Your task to perform on an android device: Show me popular games on the Play Store Image 0: 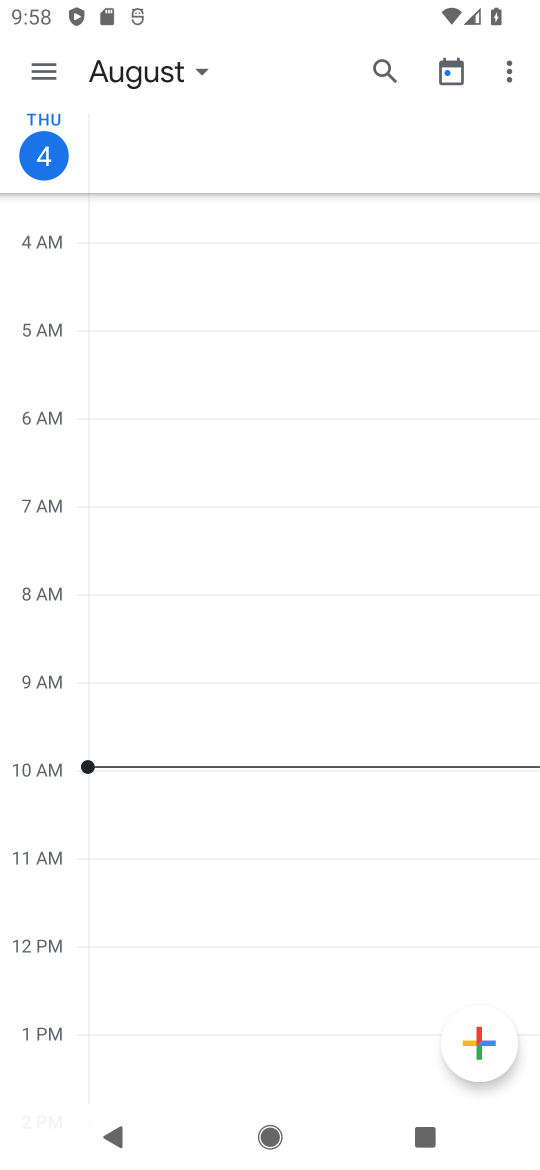
Step 0: press home button
Your task to perform on an android device: Show me popular games on the Play Store Image 1: 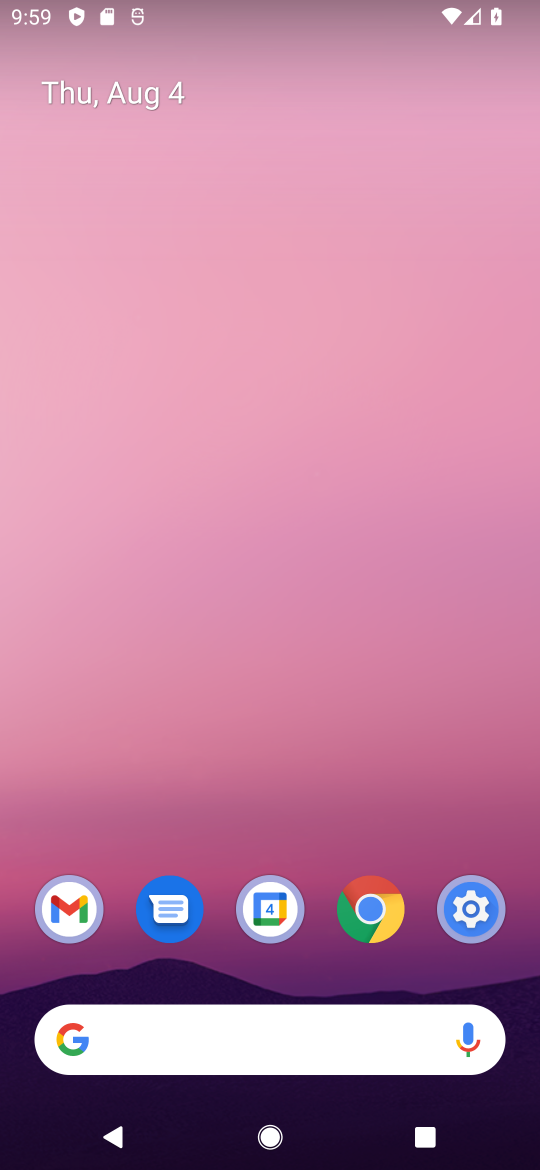
Step 1: drag from (318, 893) to (364, 191)
Your task to perform on an android device: Show me popular games on the Play Store Image 2: 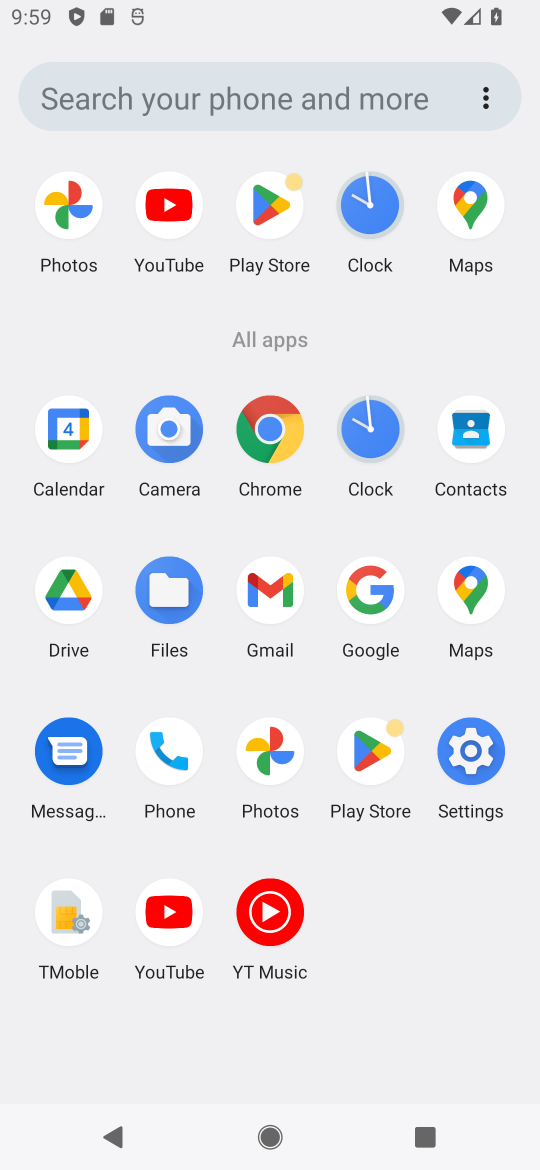
Step 2: click (273, 209)
Your task to perform on an android device: Show me popular games on the Play Store Image 3: 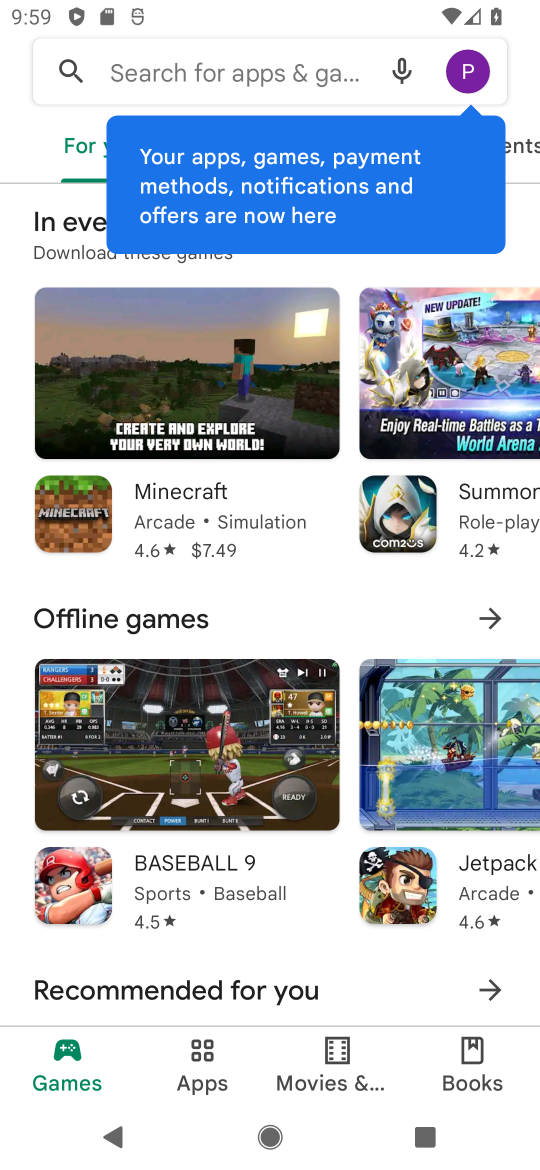
Step 3: click (73, 1074)
Your task to perform on an android device: Show me popular games on the Play Store Image 4: 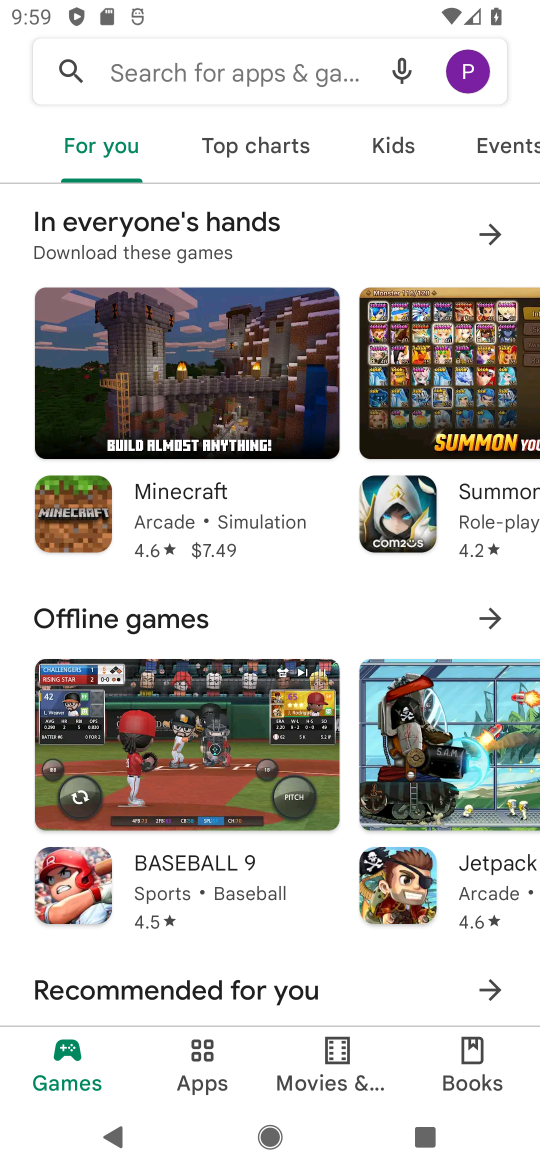
Step 4: drag from (344, 930) to (354, 289)
Your task to perform on an android device: Show me popular games on the Play Store Image 5: 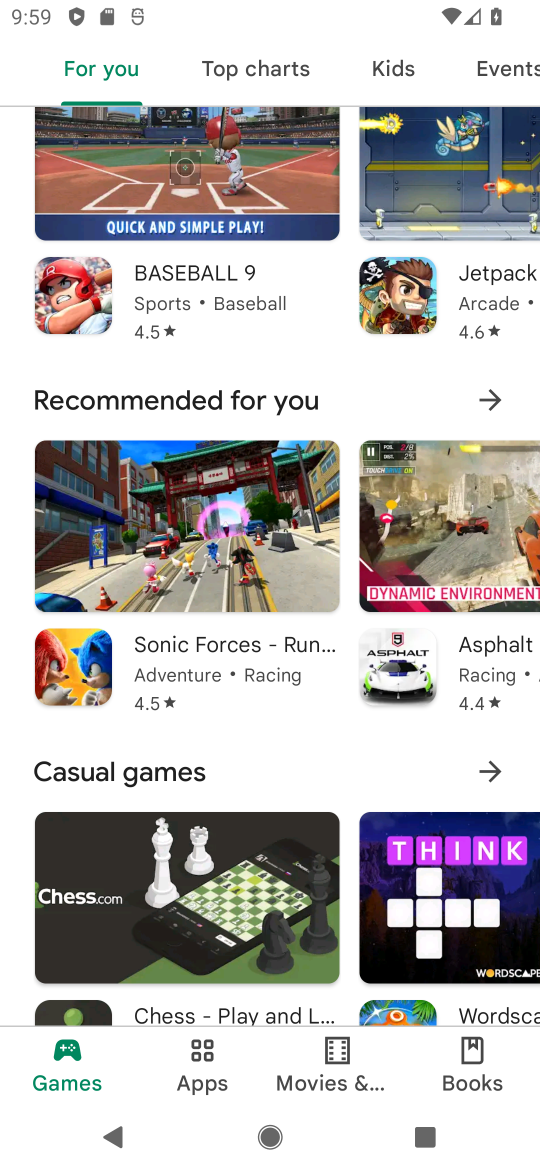
Step 5: drag from (342, 789) to (355, 296)
Your task to perform on an android device: Show me popular games on the Play Store Image 6: 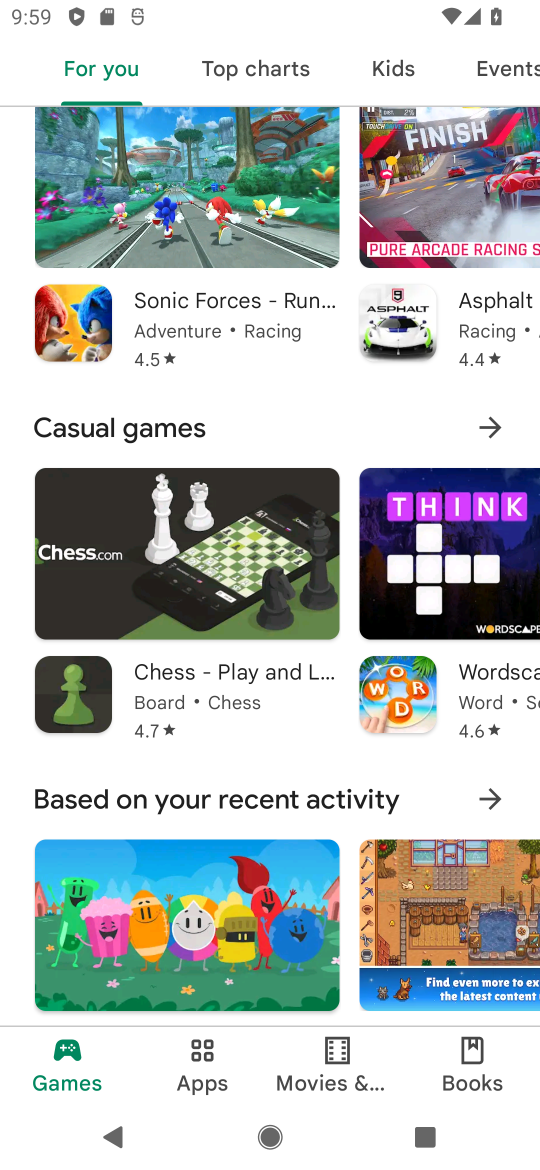
Step 6: drag from (286, 804) to (323, 189)
Your task to perform on an android device: Show me popular games on the Play Store Image 7: 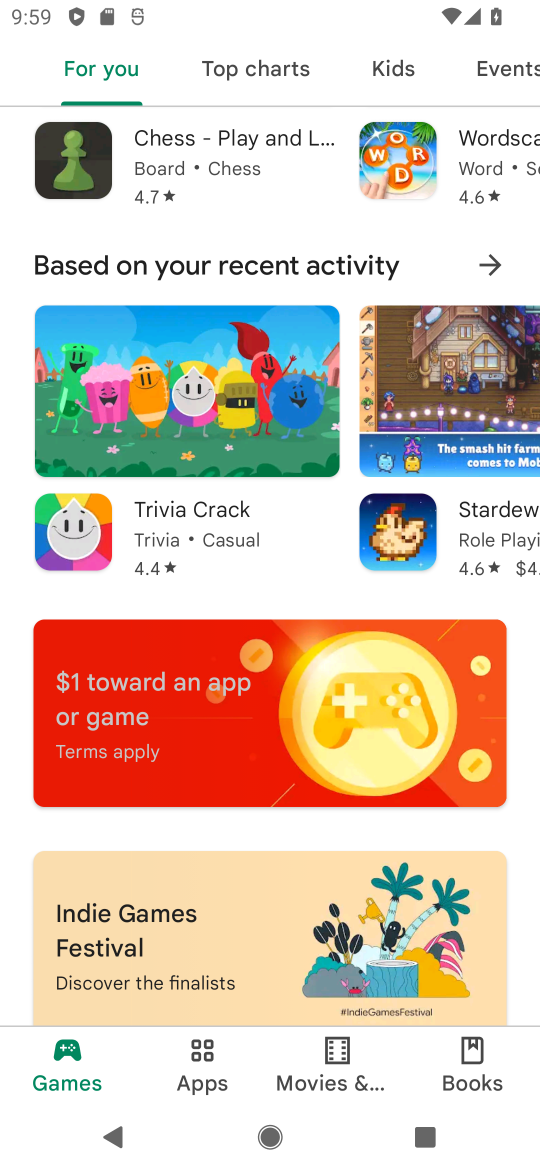
Step 7: drag from (200, 882) to (235, 309)
Your task to perform on an android device: Show me popular games on the Play Store Image 8: 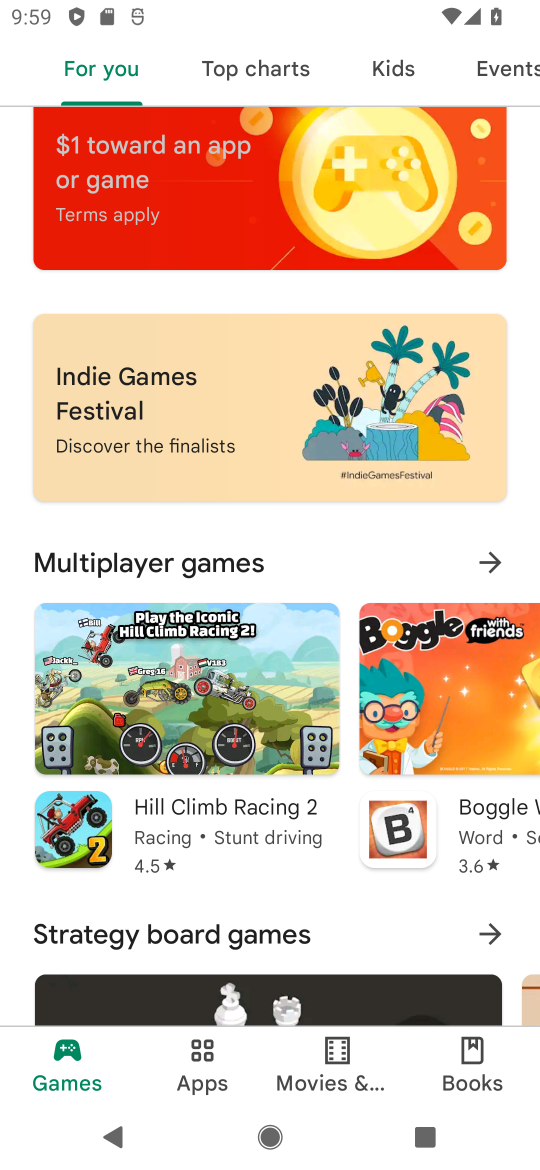
Step 8: drag from (199, 853) to (232, 273)
Your task to perform on an android device: Show me popular games on the Play Store Image 9: 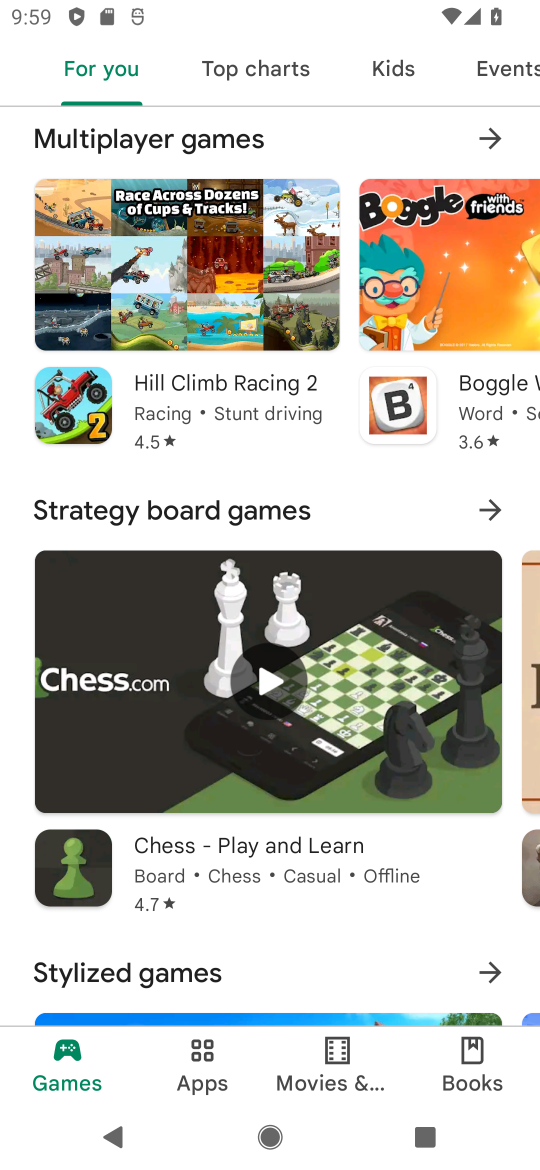
Step 9: drag from (259, 920) to (303, 337)
Your task to perform on an android device: Show me popular games on the Play Store Image 10: 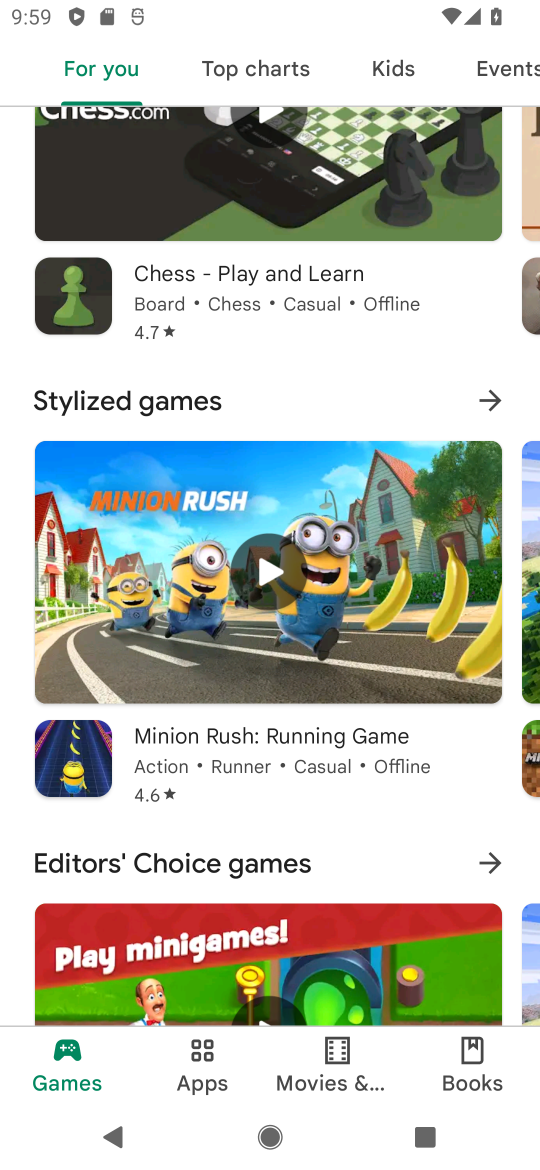
Step 10: drag from (236, 807) to (271, 332)
Your task to perform on an android device: Show me popular games on the Play Store Image 11: 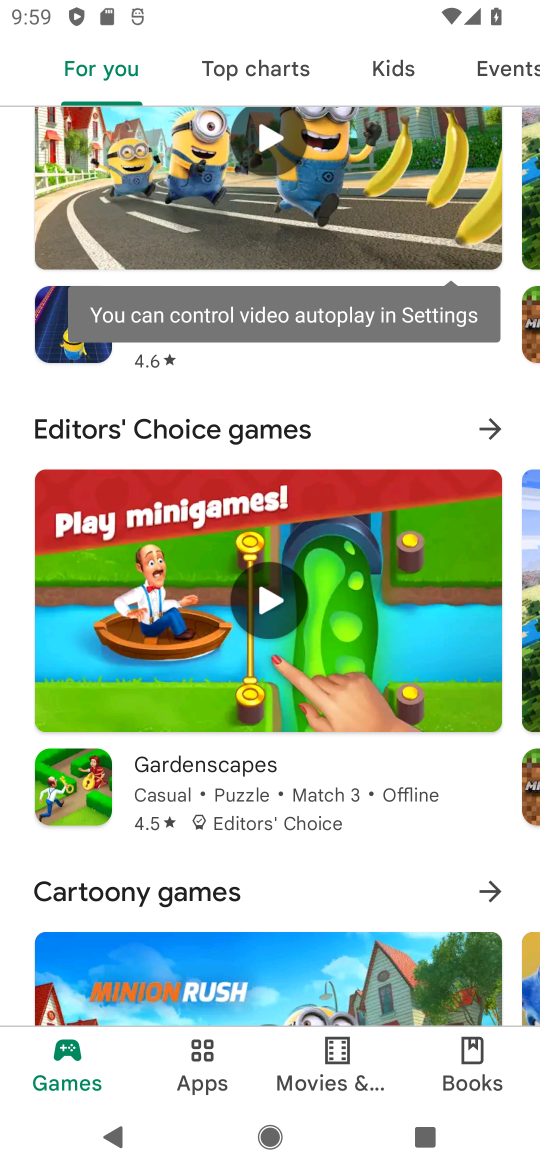
Step 11: drag from (216, 857) to (252, 367)
Your task to perform on an android device: Show me popular games on the Play Store Image 12: 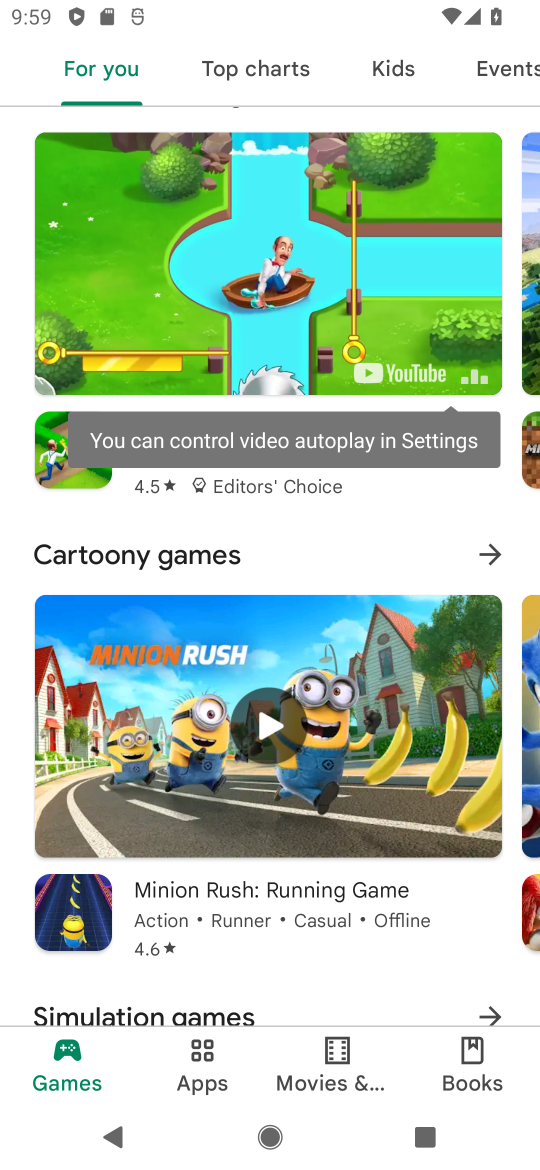
Step 12: drag from (221, 771) to (308, 212)
Your task to perform on an android device: Show me popular games on the Play Store Image 13: 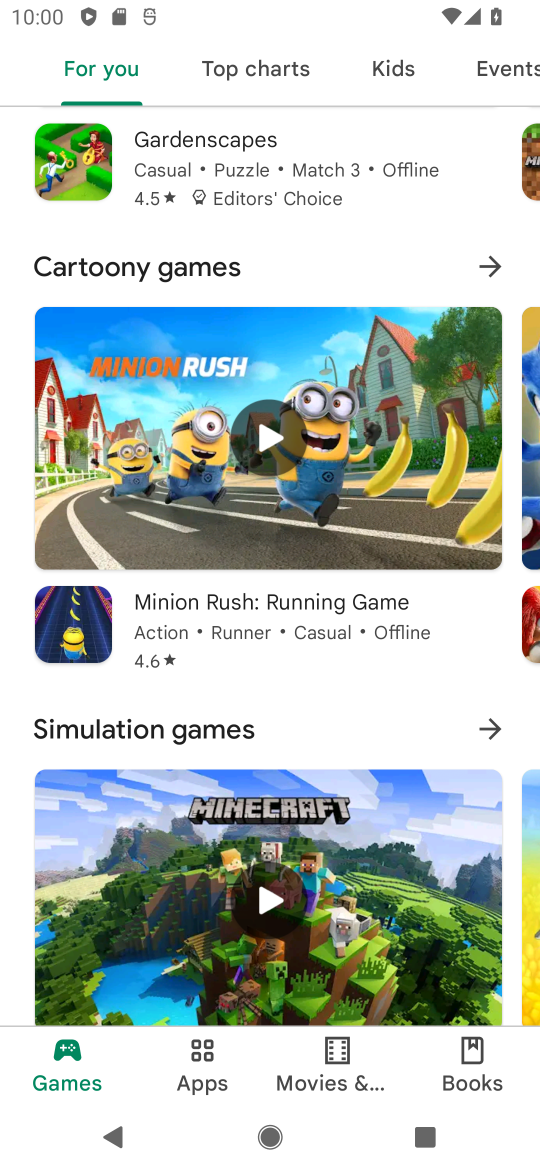
Step 13: drag from (341, 722) to (356, 322)
Your task to perform on an android device: Show me popular games on the Play Store Image 14: 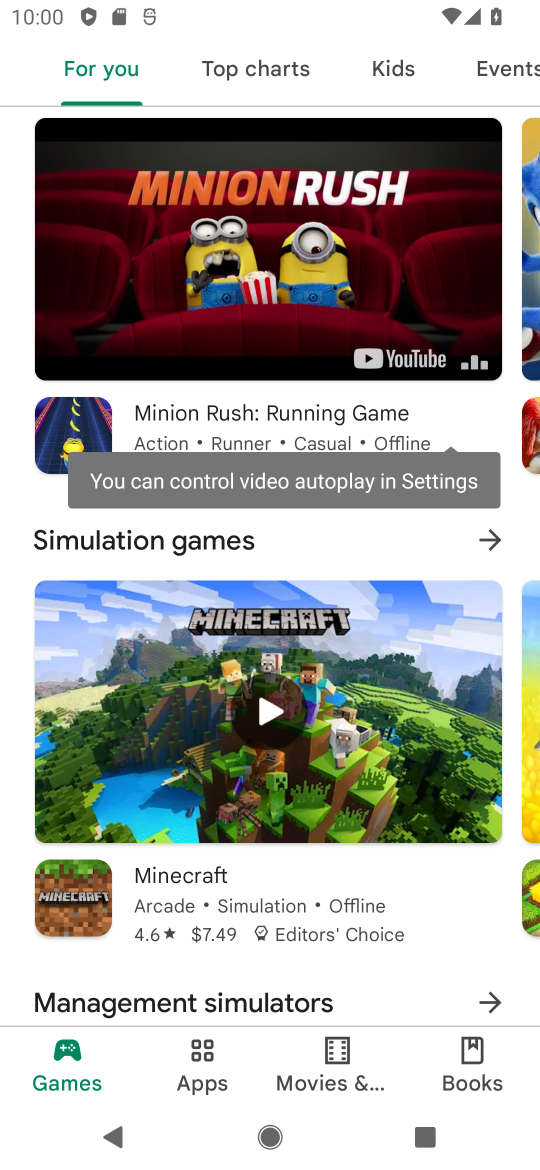
Step 14: drag from (272, 923) to (282, 363)
Your task to perform on an android device: Show me popular games on the Play Store Image 15: 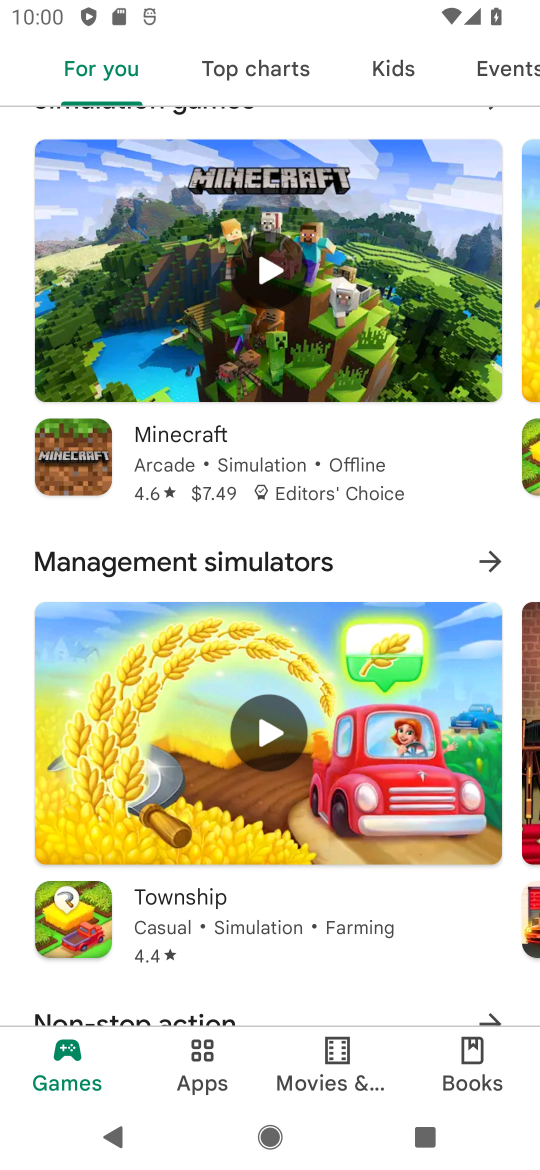
Step 15: drag from (232, 889) to (277, 315)
Your task to perform on an android device: Show me popular games on the Play Store Image 16: 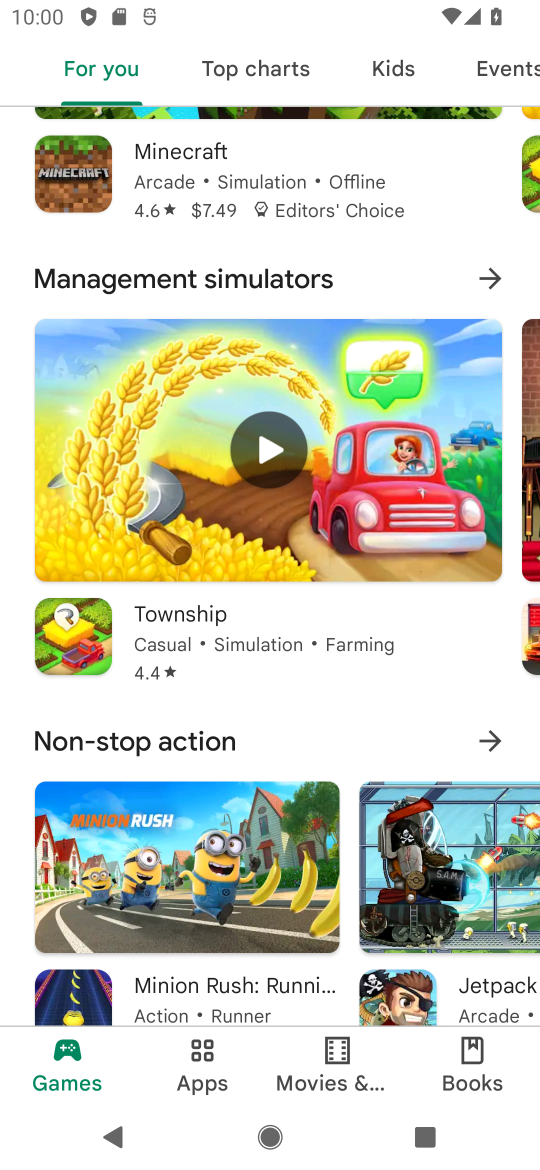
Step 16: drag from (214, 817) to (225, 281)
Your task to perform on an android device: Show me popular games on the Play Store Image 17: 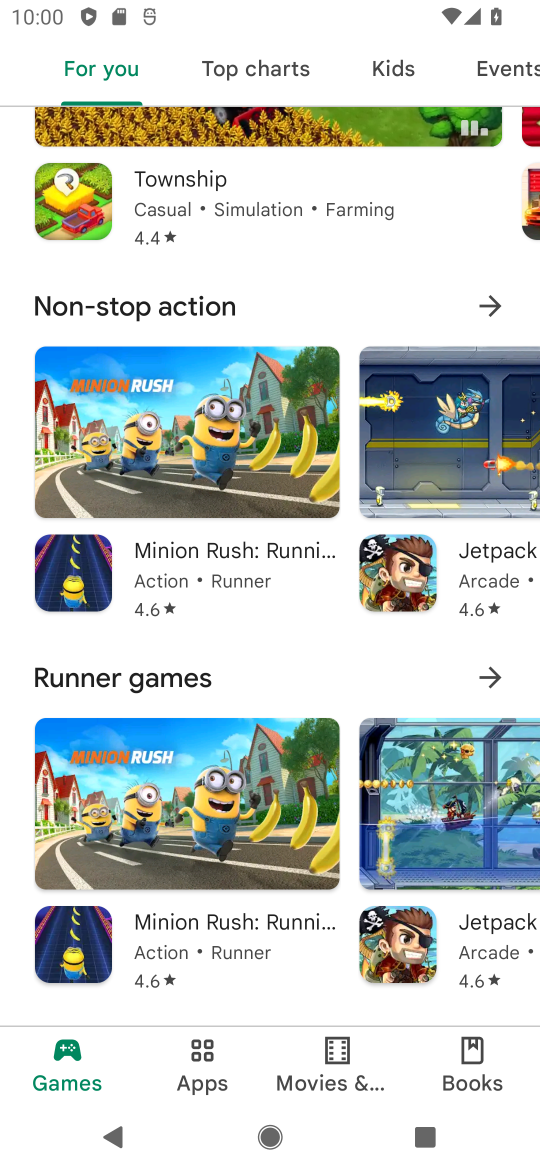
Step 17: drag from (206, 771) to (213, 210)
Your task to perform on an android device: Show me popular games on the Play Store Image 18: 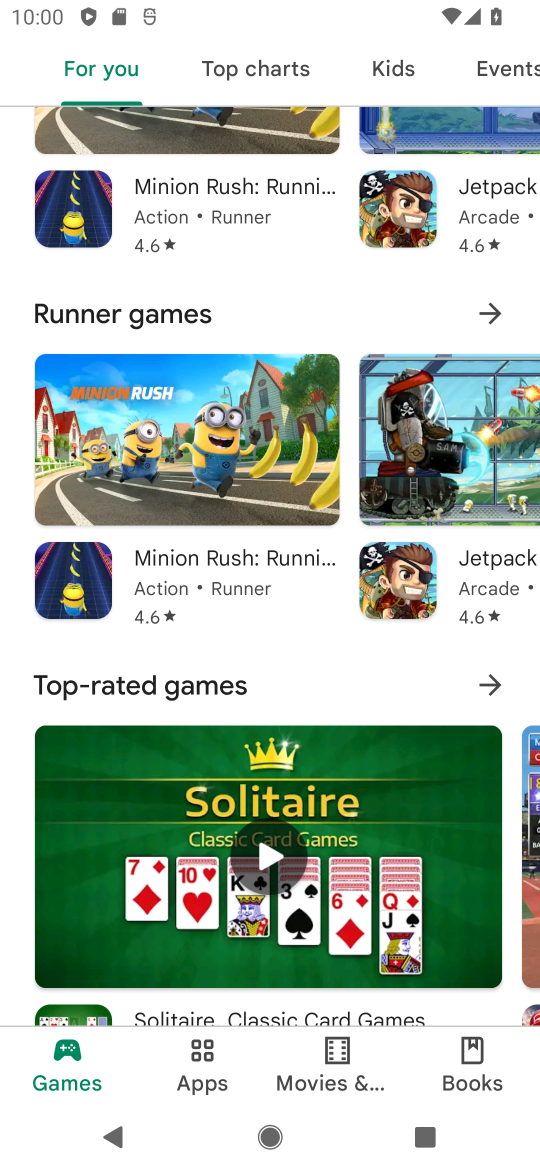
Step 18: drag from (219, 935) to (217, 326)
Your task to perform on an android device: Show me popular games on the Play Store Image 19: 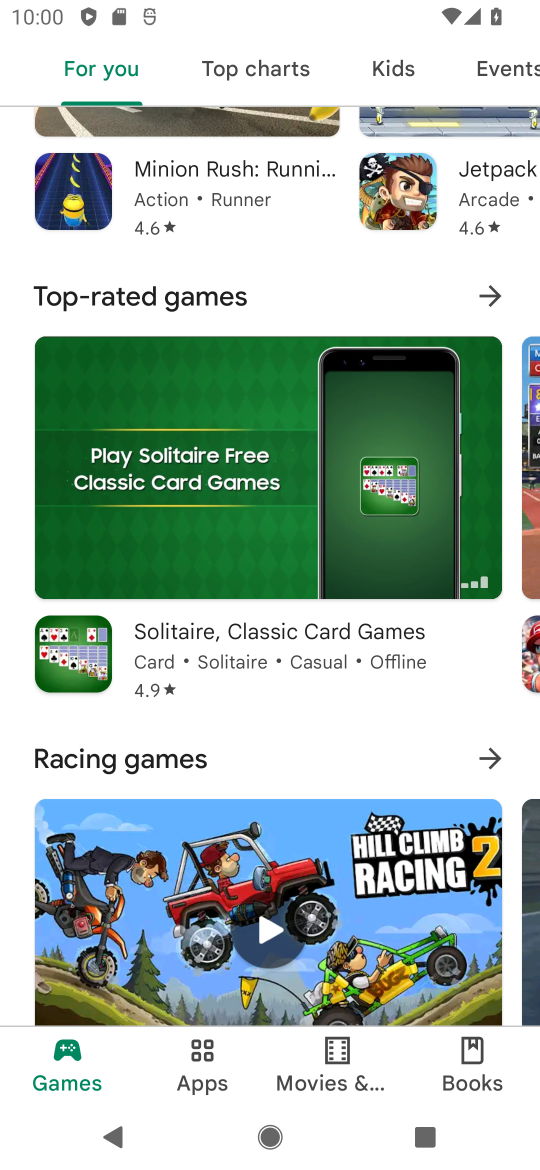
Step 19: drag from (232, 775) to (264, 320)
Your task to perform on an android device: Show me popular games on the Play Store Image 20: 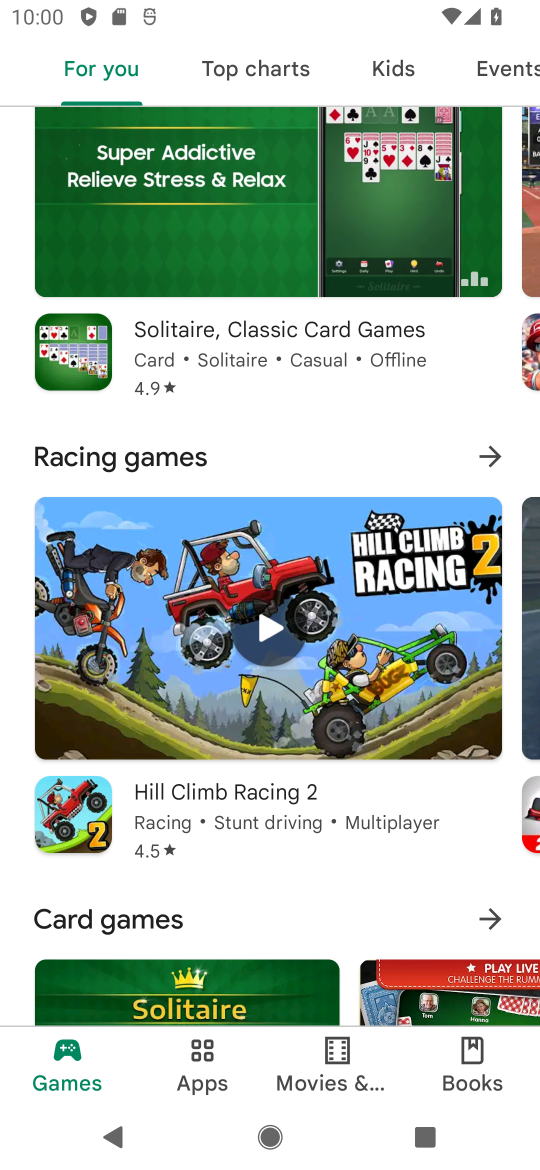
Step 20: drag from (226, 902) to (232, 297)
Your task to perform on an android device: Show me popular games on the Play Store Image 21: 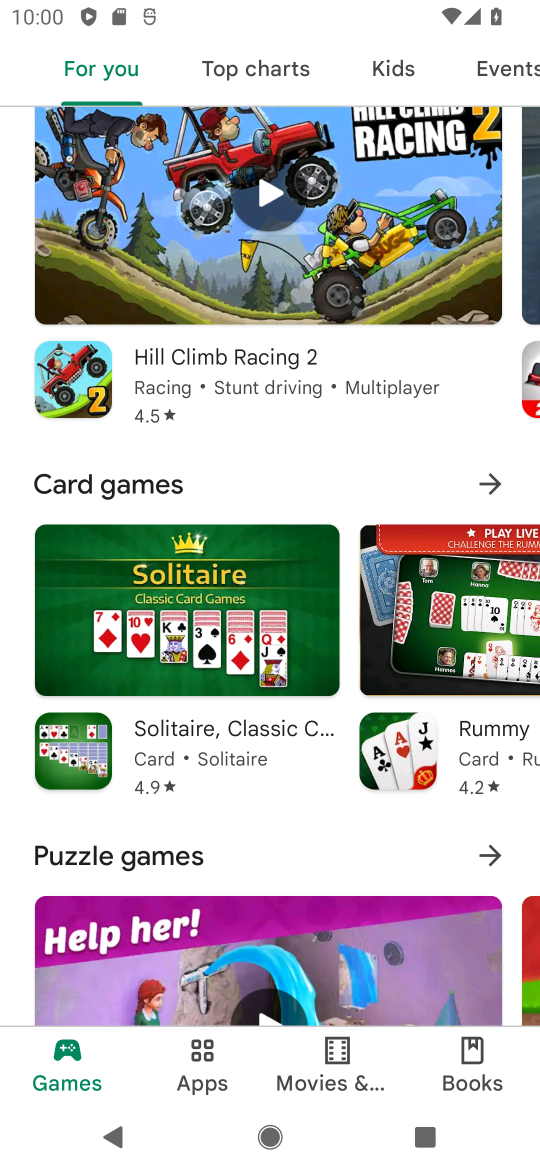
Step 21: drag from (210, 919) to (258, 364)
Your task to perform on an android device: Show me popular games on the Play Store Image 22: 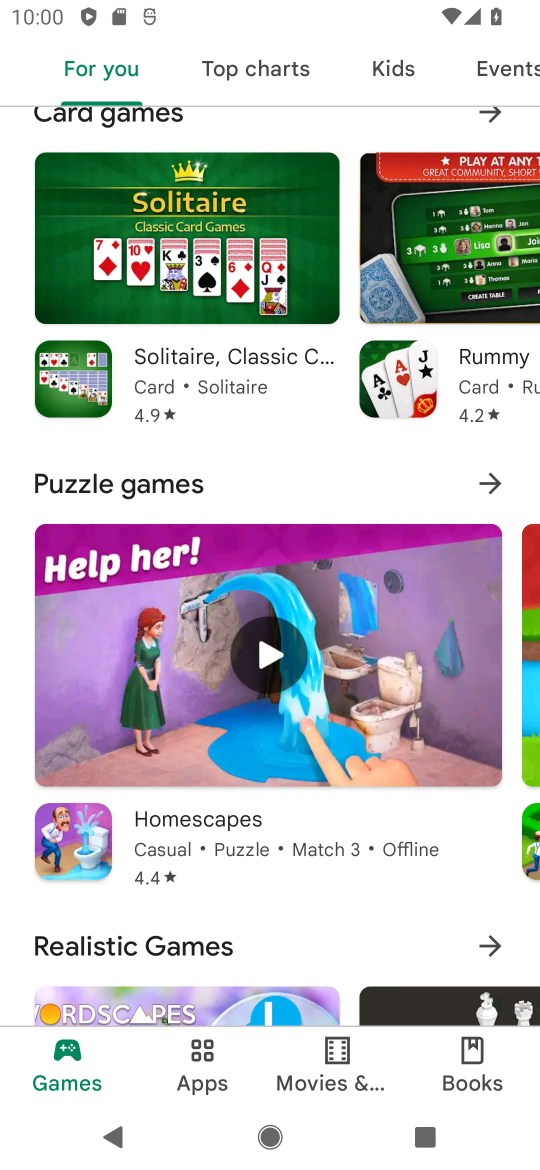
Step 22: drag from (258, 813) to (312, 295)
Your task to perform on an android device: Show me popular games on the Play Store Image 23: 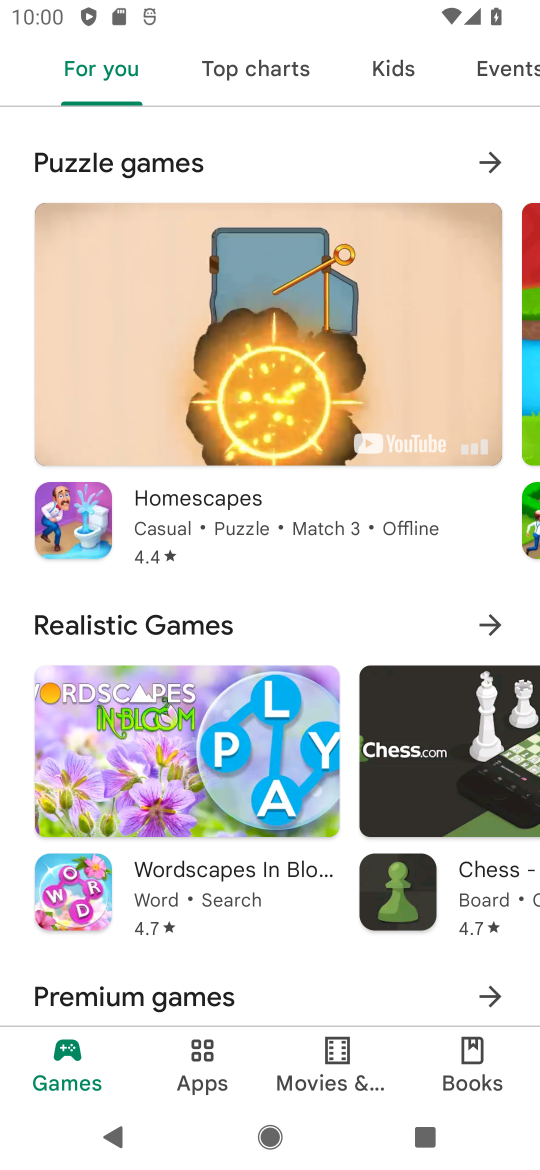
Step 23: drag from (241, 870) to (294, 309)
Your task to perform on an android device: Show me popular games on the Play Store Image 24: 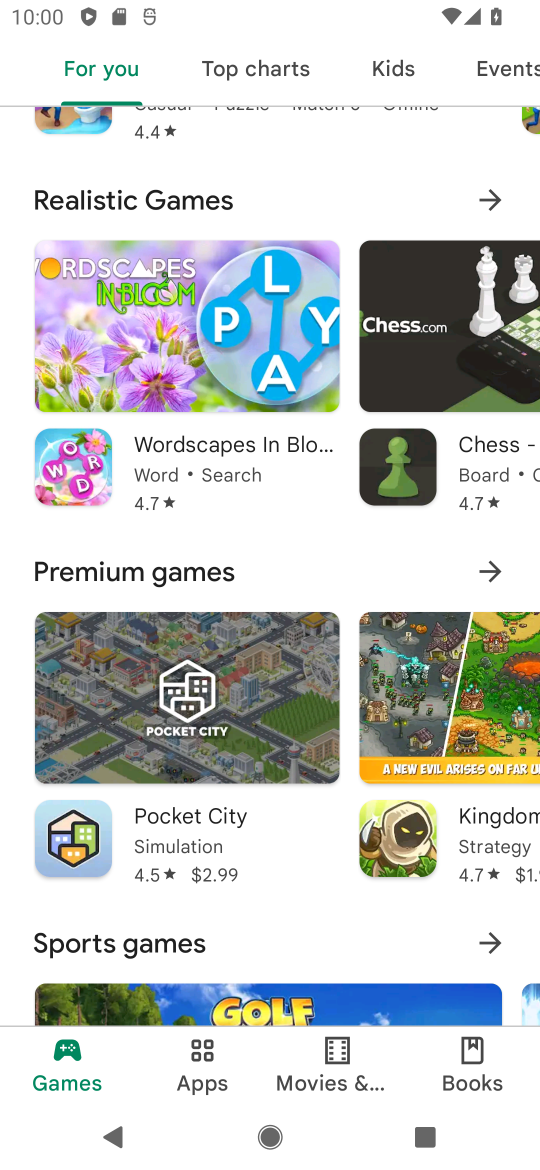
Step 24: drag from (234, 928) to (264, 376)
Your task to perform on an android device: Show me popular games on the Play Store Image 25: 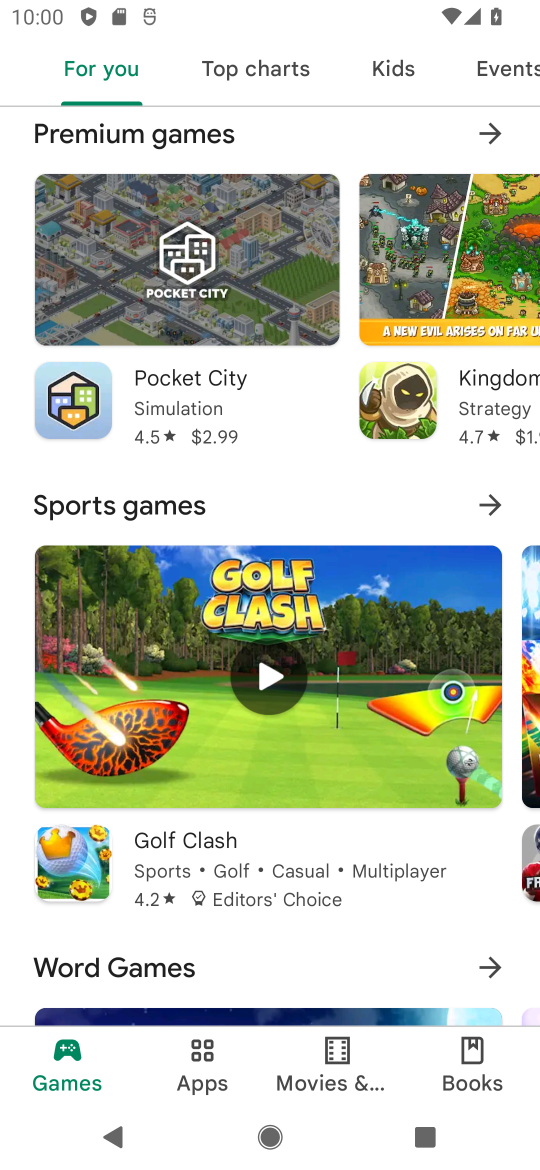
Step 25: drag from (227, 879) to (266, 326)
Your task to perform on an android device: Show me popular games on the Play Store Image 26: 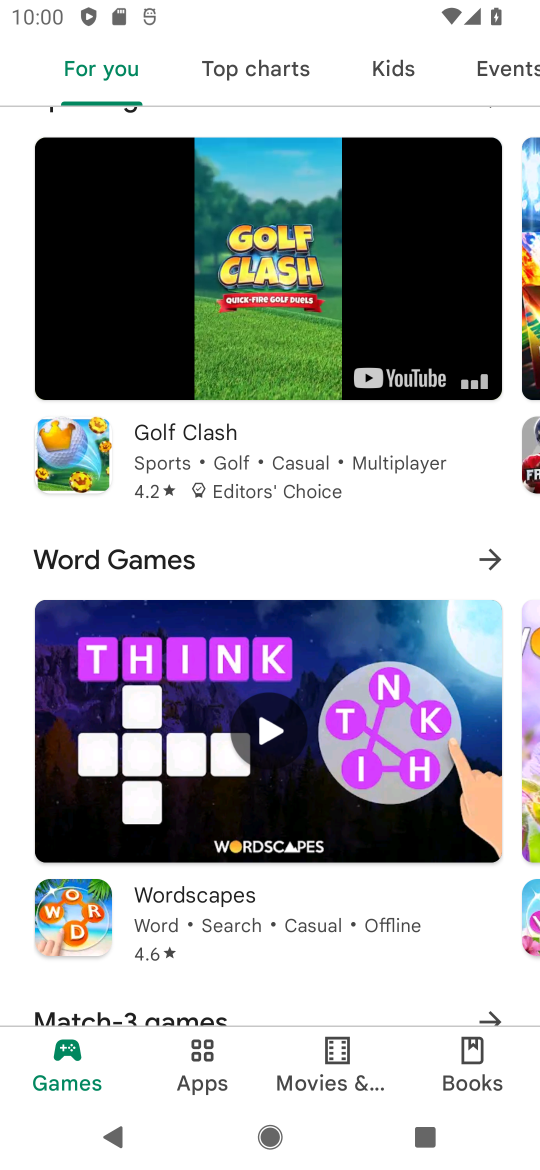
Step 26: drag from (222, 929) to (298, 316)
Your task to perform on an android device: Show me popular games on the Play Store Image 27: 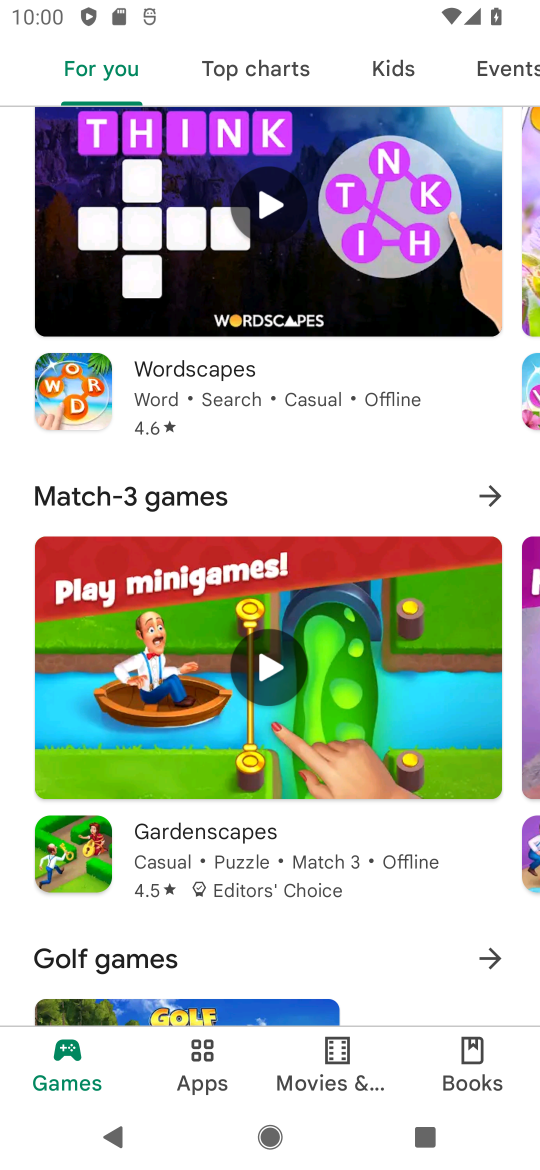
Step 27: drag from (239, 898) to (270, 333)
Your task to perform on an android device: Show me popular games on the Play Store Image 28: 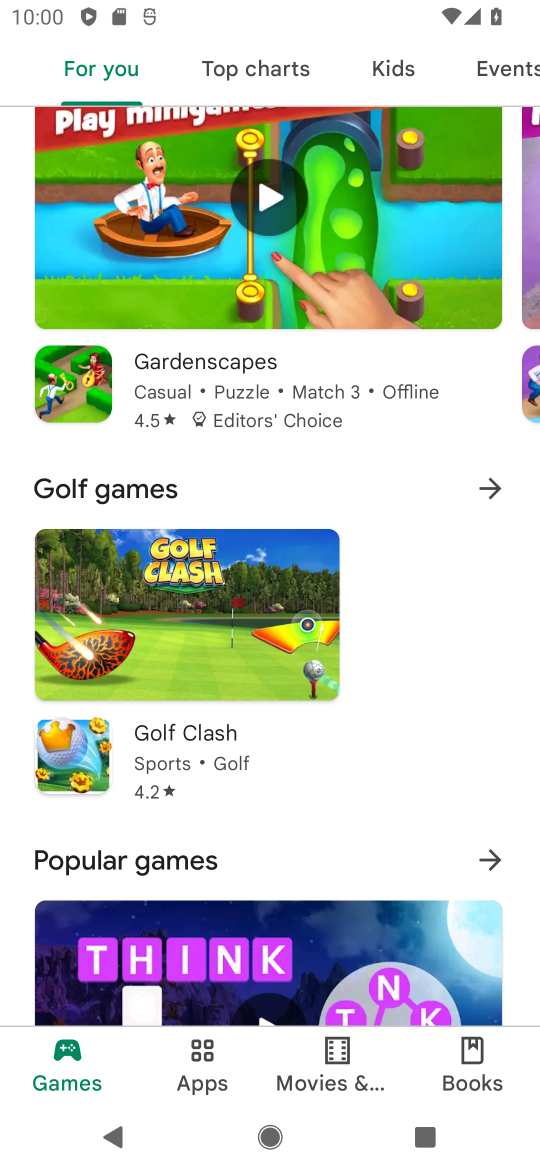
Step 28: drag from (246, 891) to (275, 498)
Your task to perform on an android device: Show me popular games on the Play Store Image 29: 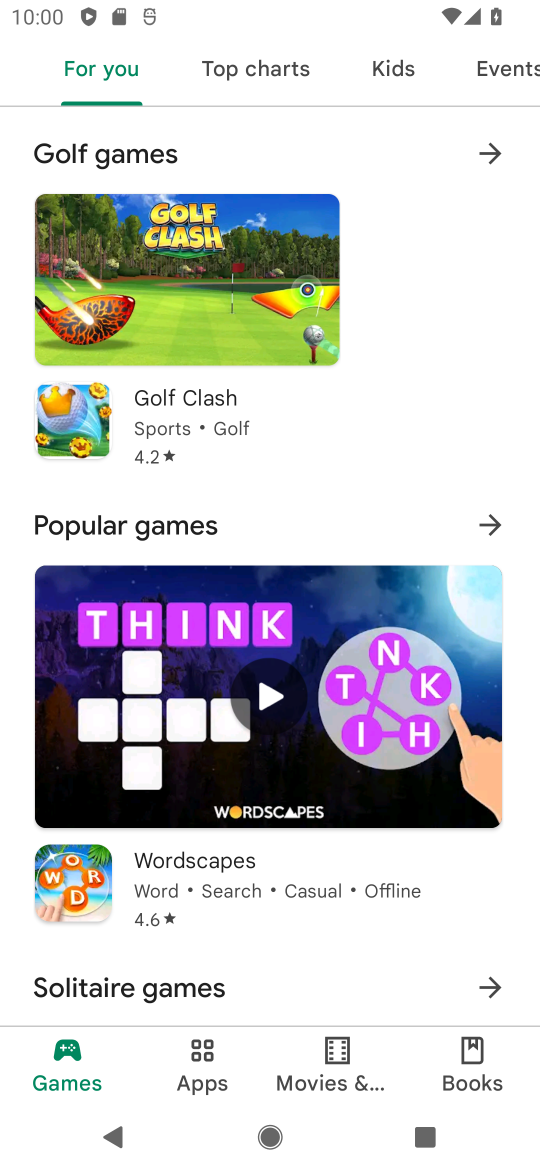
Step 29: click (397, 521)
Your task to perform on an android device: Show me popular games on the Play Store Image 30: 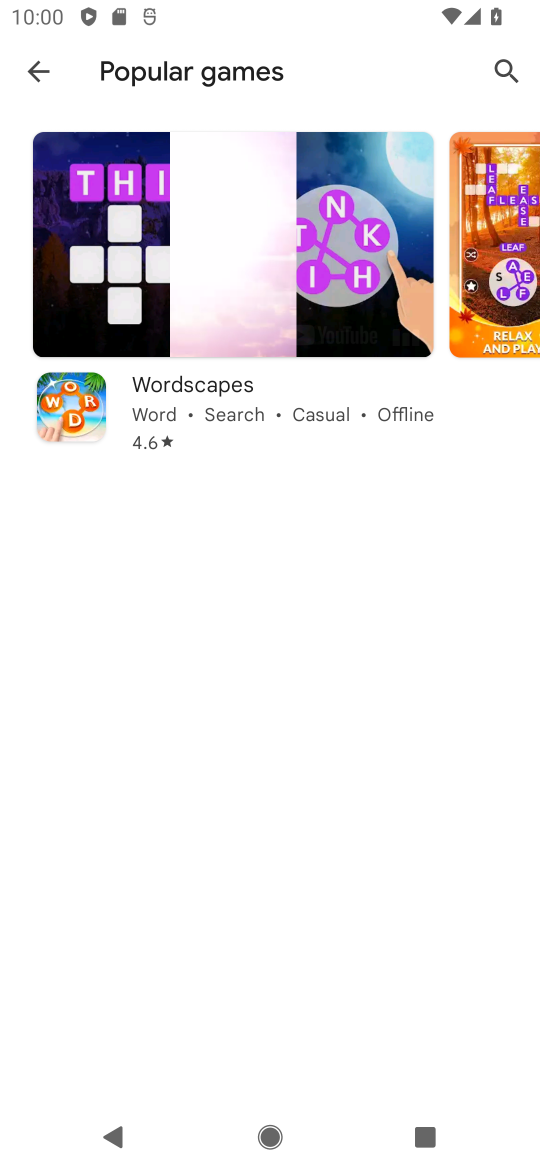
Step 30: task complete